Your task to perform on an android device: Search for top rated sushi restaurant Image 0: 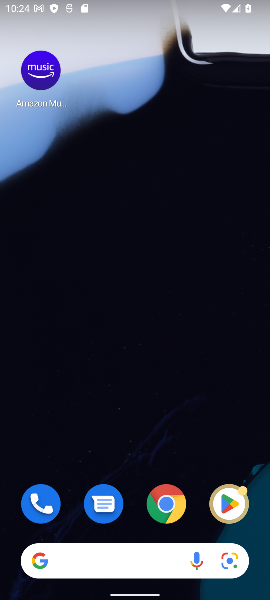
Step 0: drag from (203, 524) to (183, 63)
Your task to perform on an android device: Search for top rated sushi restaurant Image 1: 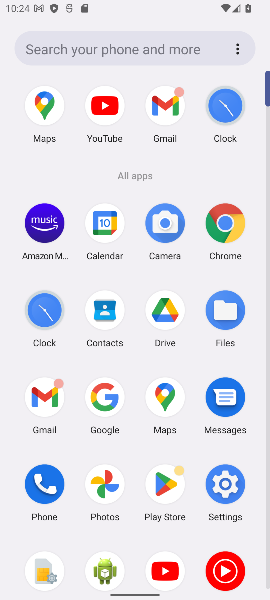
Step 1: click (163, 395)
Your task to perform on an android device: Search for top rated sushi restaurant Image 2: 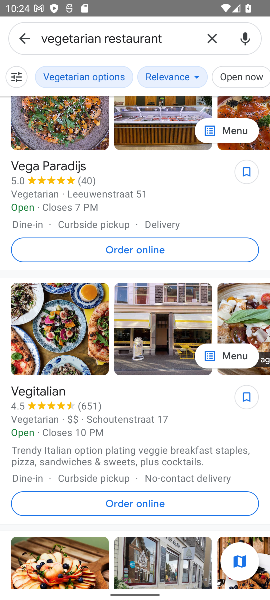
Step 2: click (208, 36)
Your task to perform on an android device: Search for top rated sushi restaurant Image 3: 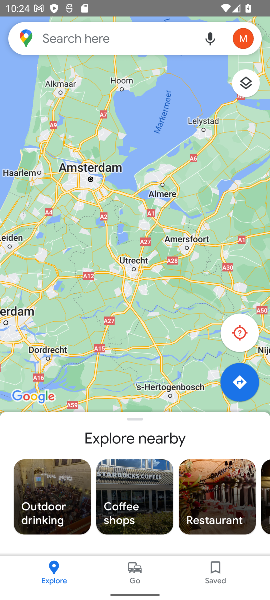
Step 3: click (111, 34)
Your task to perform on an android device: Search for top rated sushi restaurant Image 4: 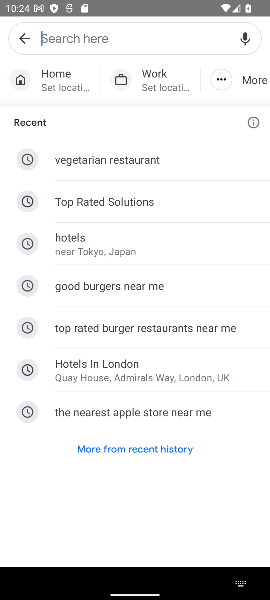
Step 4: type " top rated sushi restaurant"
Your task to perform on an android device: Search for top rated sushi restaurant Image 5: 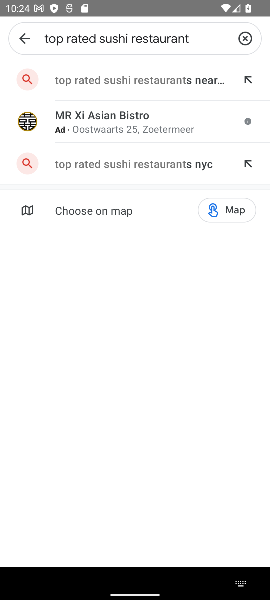
Step 5: click (89, 77)
Your task to perform on an android device: Search for top rated sushi restaurant Image 6: 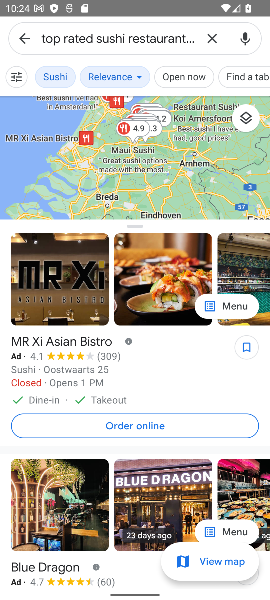
Step 6: task complete